Your task to perform on an android device: Go to privacy settings Image 0: 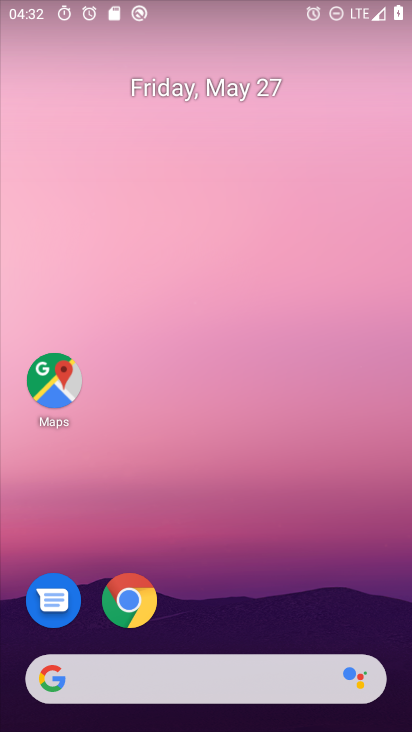
Step 0: drag from (205, 727) to (204, 130)
Your task to perform on an android device: Go to privacy settings Image 1: 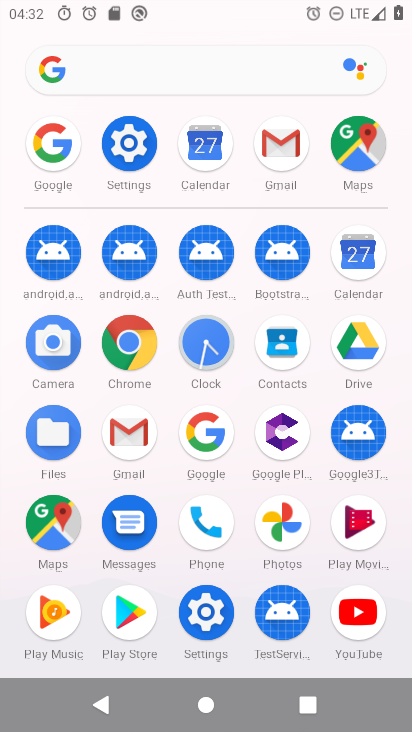
Step 1: click (130, 139)
Your task to perform on an android device: Go to privacy settings Image 2: 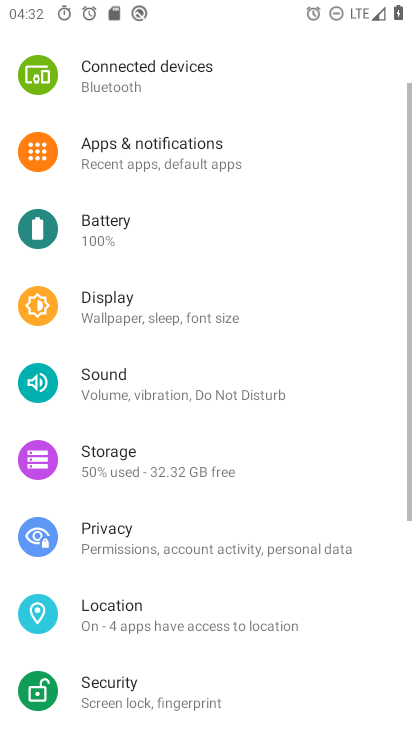
Step 2: click (122, 541)
Your task to perform on an android device: Go to privacy settings Image 3: 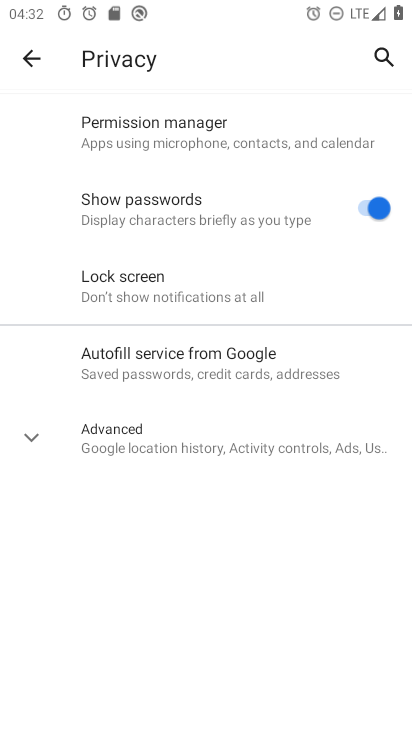
Step 3: task complete